Your task to perform on an android device: Open calendar and show me the third week of next month Image 0: 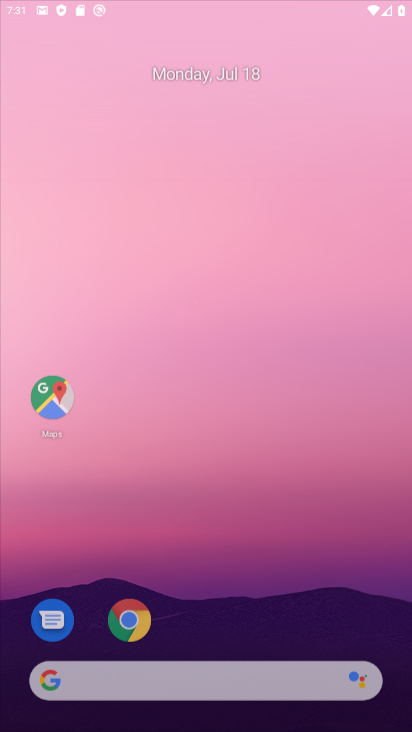
Step 0: drag from (296, 636) to (235, 79)
Your task to perform on an android device: Open calendar and show me the third week of next month Image 1: 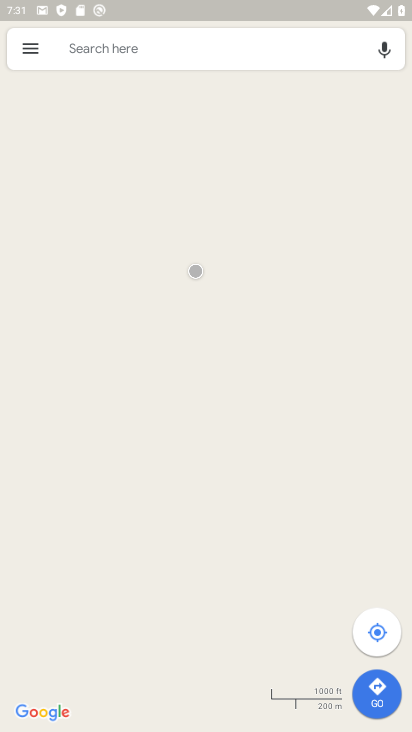
Step 1: press home button
Your task to perform on an android device: Open calendar and show me the third week of next month Image 2: 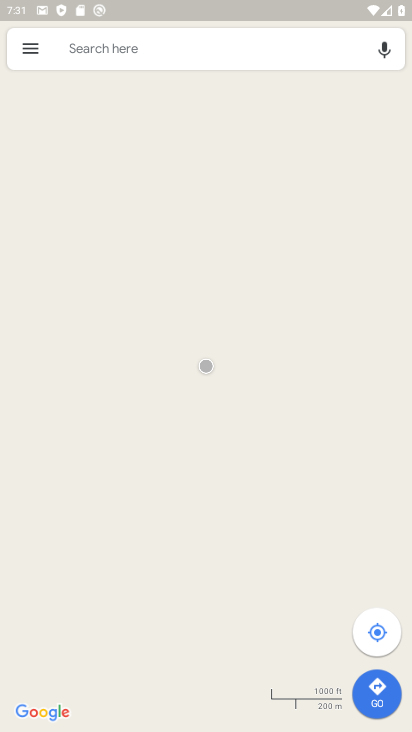
Step 2: press home button
Your task to perform on an android device: Open calendar and show me the third week of next month Image 3: 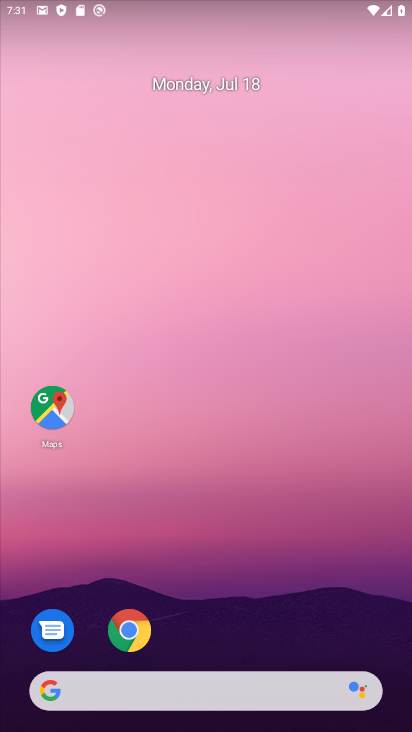
Step 3: drag from (271, 630) to (255, 115)
Your task to perform on an android device: Open calendar and show me the third week of next month Image 4: 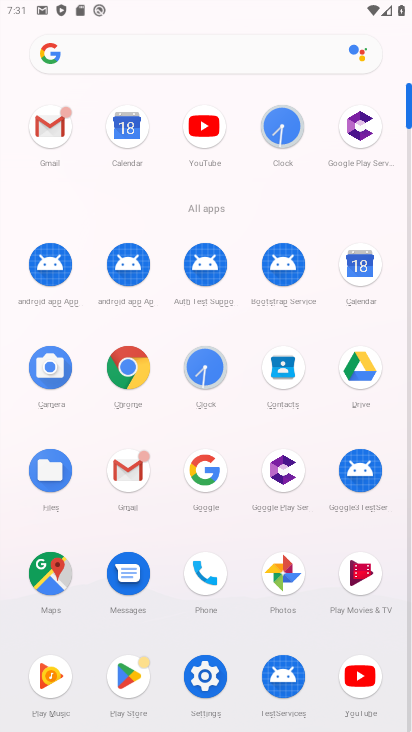
Step 4: click (347, 246)
Your task to perform on an android device: Open calendar and show me the third week of next month Image 5: 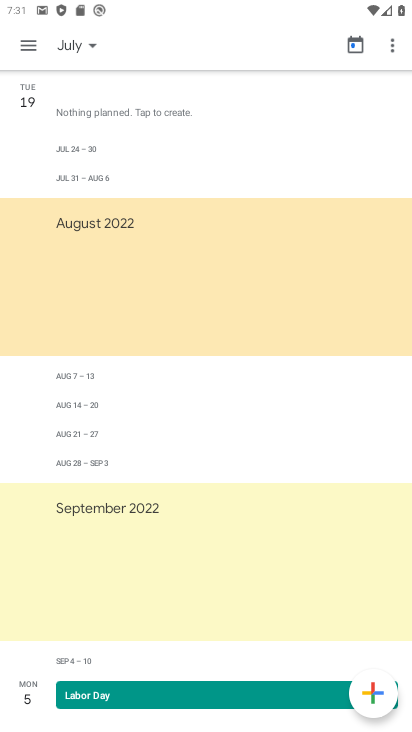
Step 5: click (355, 254)
Your task to perform on an android device: Open calendar and show me the third week of next month Image 6: 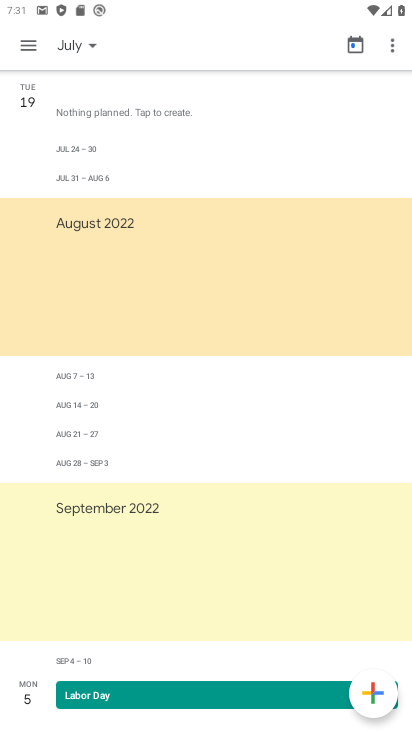
Step 6: click (27, 45)
Your task to perform on an android device: Open calendar and show me the third week of next month Image 7: 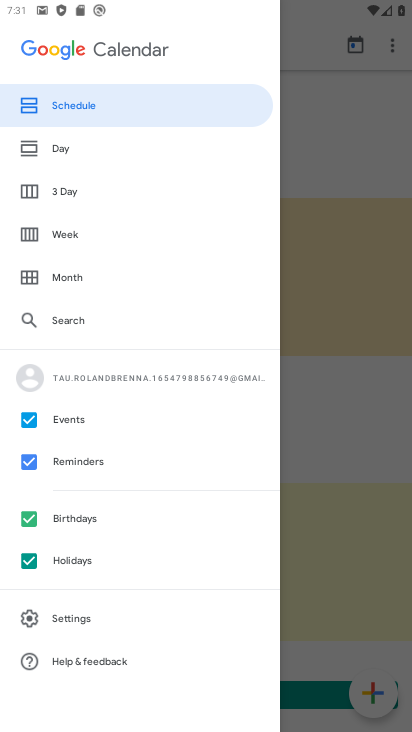
Step 7: click (84, 261)
Your task to perform on an android device: Open calendar and show me the third week of next month Image 8: 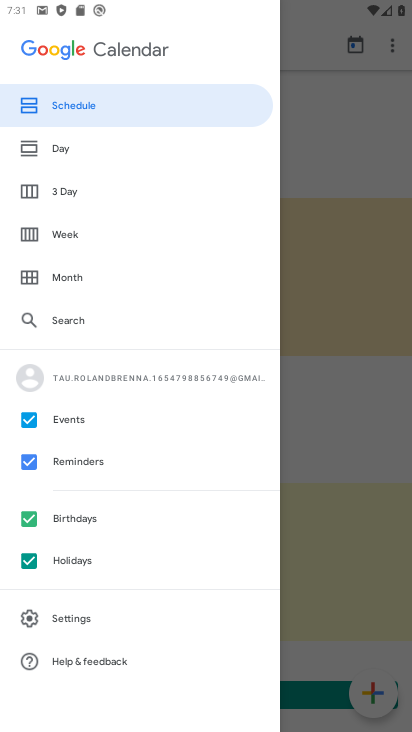
Step 8: click (68, 268)
Your task to perform on an android device: Open calendar and show me the third week of next month Image 9: 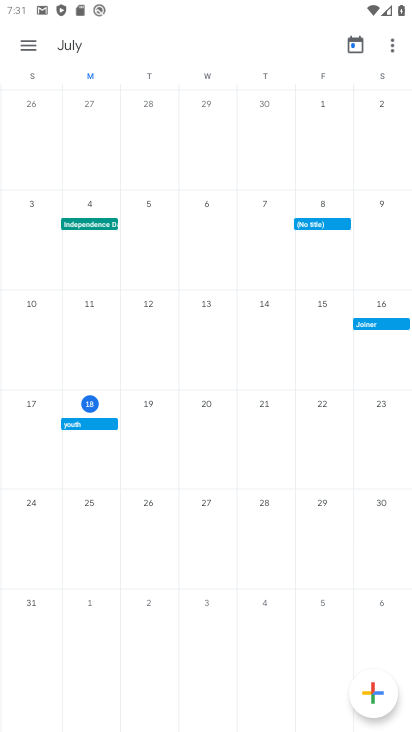
Step 9: task complete